Your task to perform on an android device: Search for sushi restaurants on Maps Image 0: 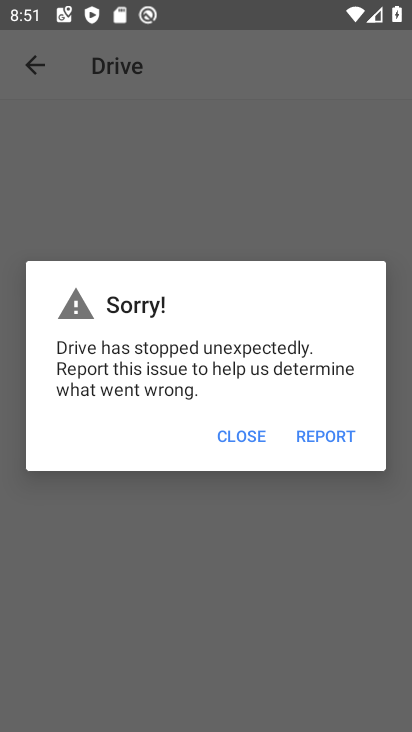
Step 0: press home button
Your task to perform on an android device: Search for sushi restaurants on Maps Image 1: 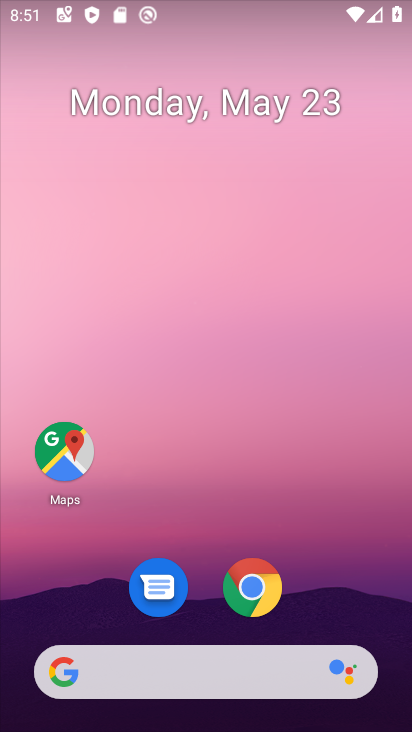
Step 1: click (82, 472)
Your task to perform on an android device: Search for sushi restaurants on Maps Image 2: 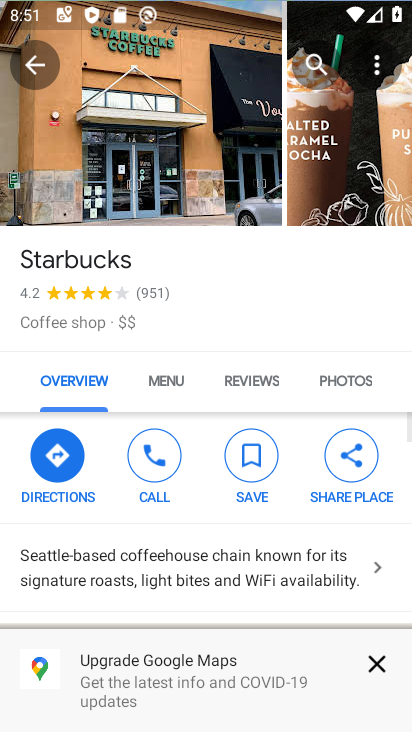
Step 2: press back button
Your task to perform on an android device: Search for sushi restaurants on Maps Image 3: 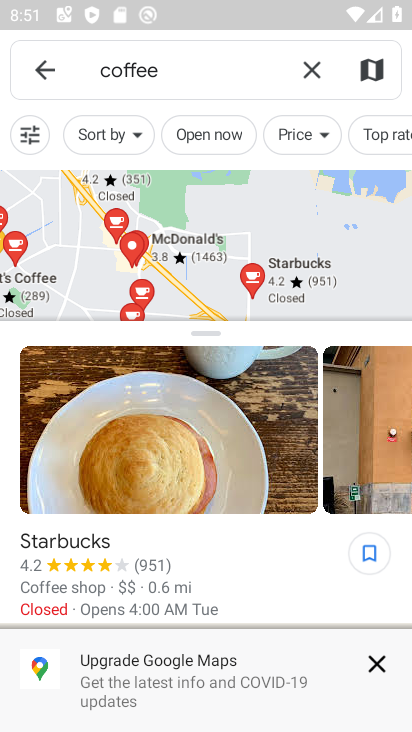
Step 3: click (308, 61)
Your task to perform on an android device: Search for sushi restaurants on Maps Image 4: 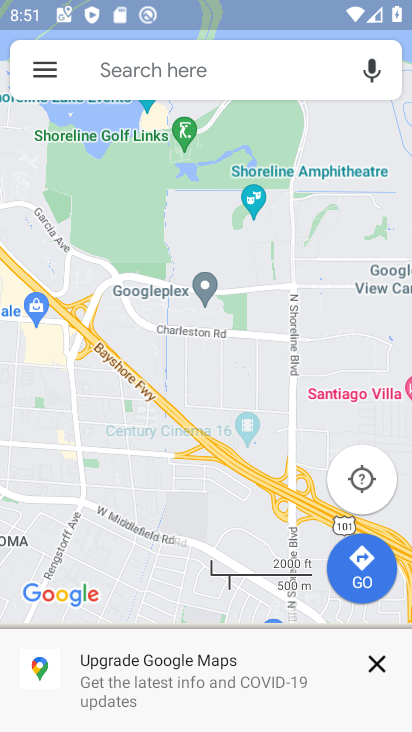
Step 4: click (294, 67)
Your task to perform on an android device: Search for sushi restaurants on Maps Image 5: 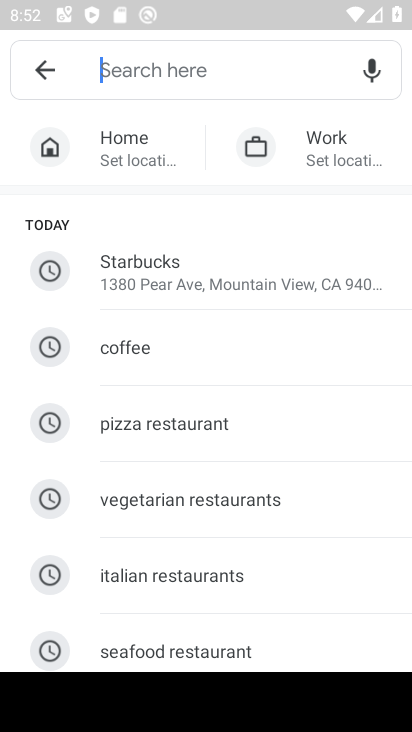
Step 5: type "sushi restaurants"
Your task to perform on an android device: Search for sushi restaurants on Maps Image 6: 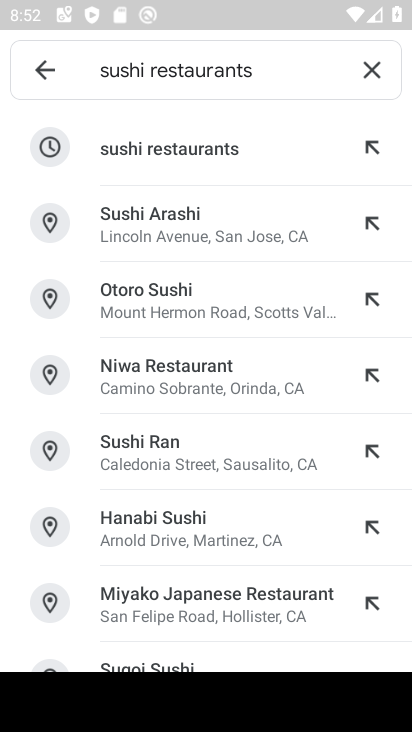
Step 6: click (225, 150)
Your task to perform on an android device: Search for sushi restaurants on Maps Image 7: 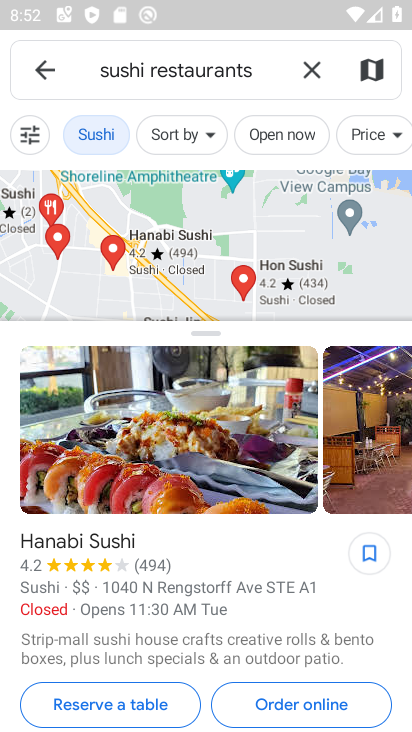
Step 7: drag from (275, 602) to (383, 30)
Your task to perform on an android device: Search for sushi restaurants on Maps Image 8: 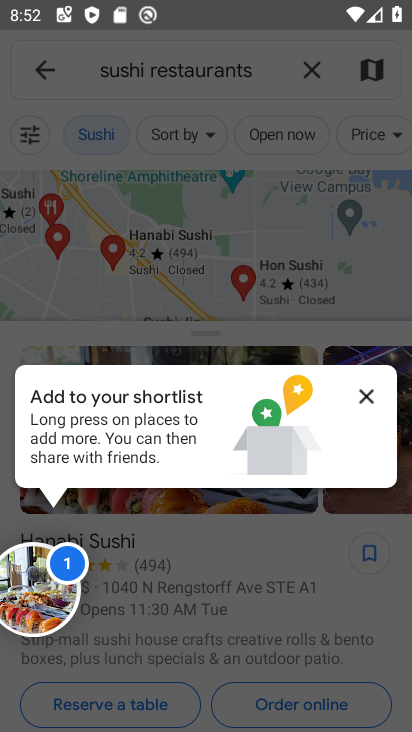
Step 8: click (372, 396)
Your task to perform on an android device: Search for sushi restaurants on Maps Image 9: 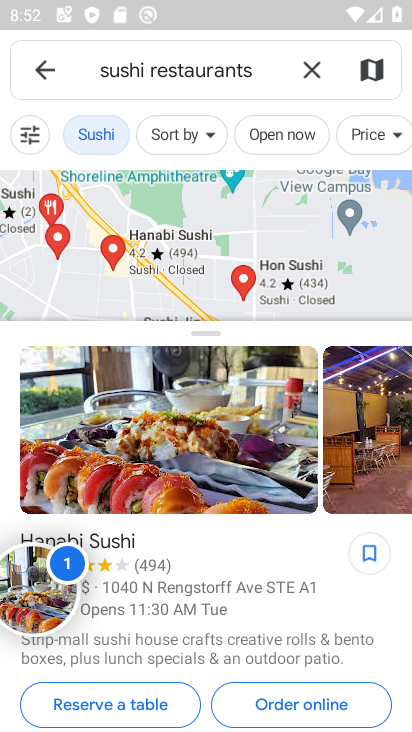
Step 9: click (372, 396)
Your task to perform on an android device: Search for sushi restaurants on Maps Image 10: 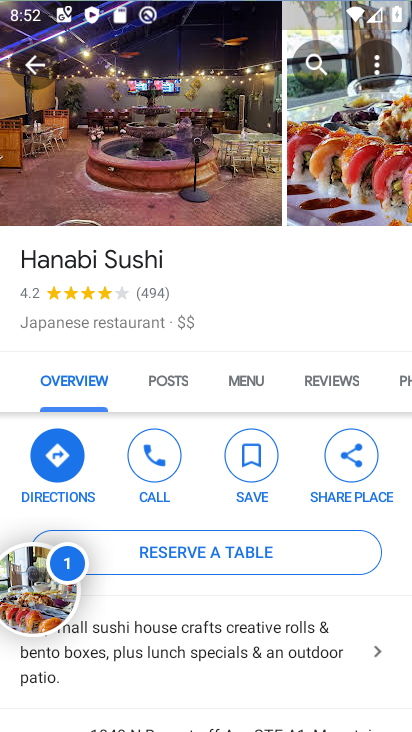
Step 10: click (34, 56)
Your task to perform on an android device: Search for sushi restaurants on Maps Image 11: 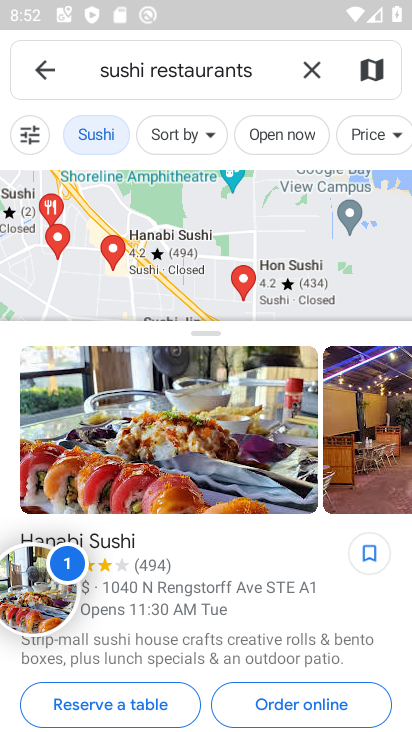
Step 11: task complete